Your task to perform on an android device: Search for Italian restaurants on Maps Image 0: 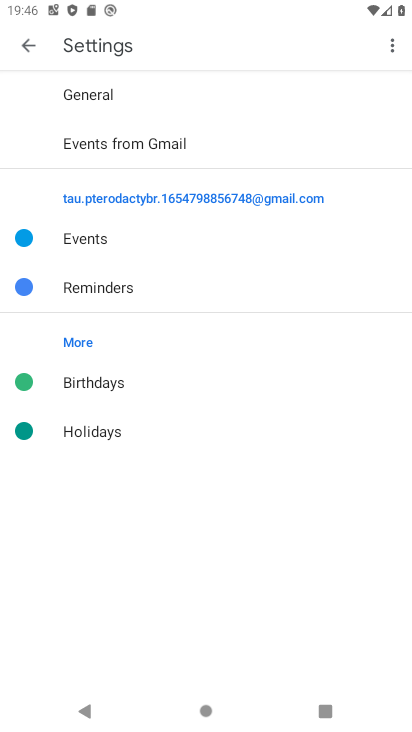
Step 0: press home button
Your task to perform on an android device: Search for Italian restaurants on Maps Image 1: 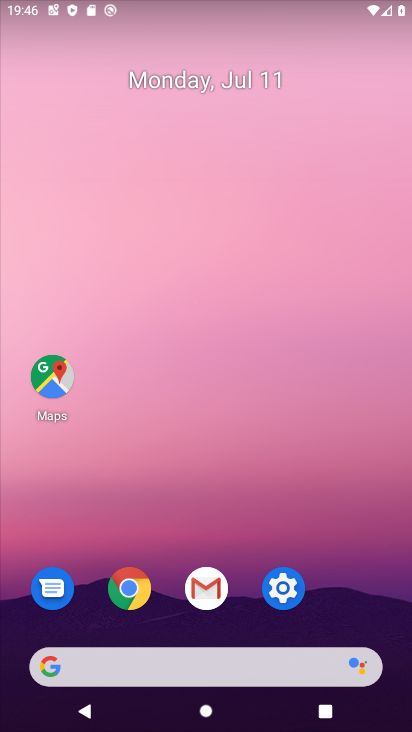
Step 1: drag from (247, 675) to (182, 195)
Your task to perform on an android device: Search for Italian restaurants on Maps Image 2: 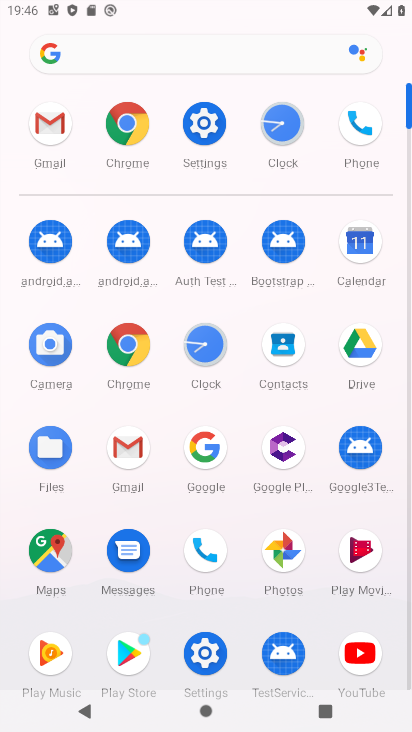
Step 2: click (48, 552)
Your task to perform on an android device: Search for Italian restaurants on Maps Image 3: 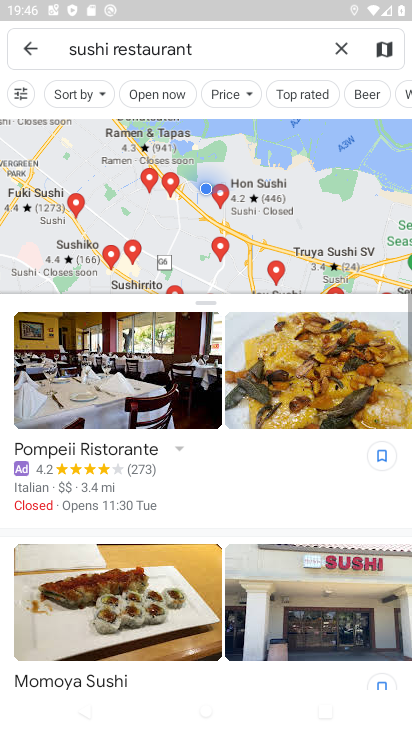
Step 3: click (342, 45)
Your task to perform on an android device: Search for Italian restaurants on Maps Image 4: 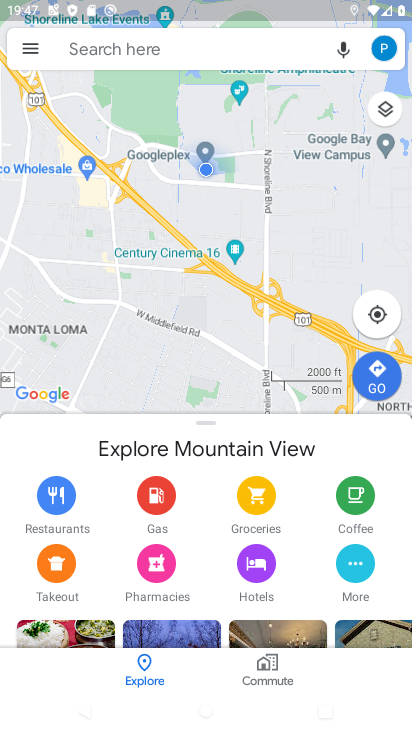
Step 4: click (274, 45)
Your task to perform on an android device: Search for Italian restaurants on Maps Image 5: 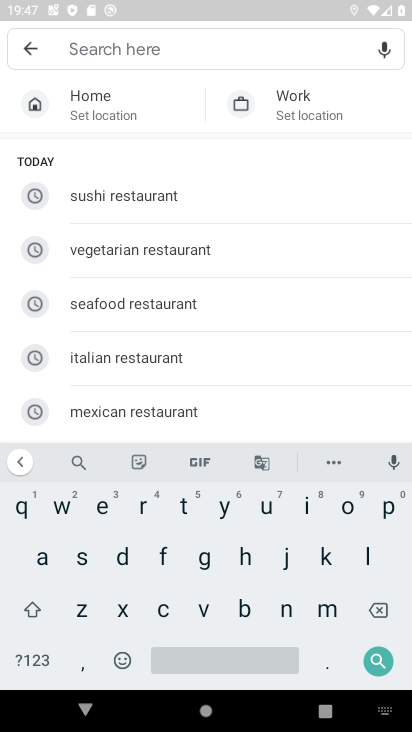
Step 5: click (139, 361)
Your task to perform on an android device: Search for Italian restaurants on Maps Image 6: 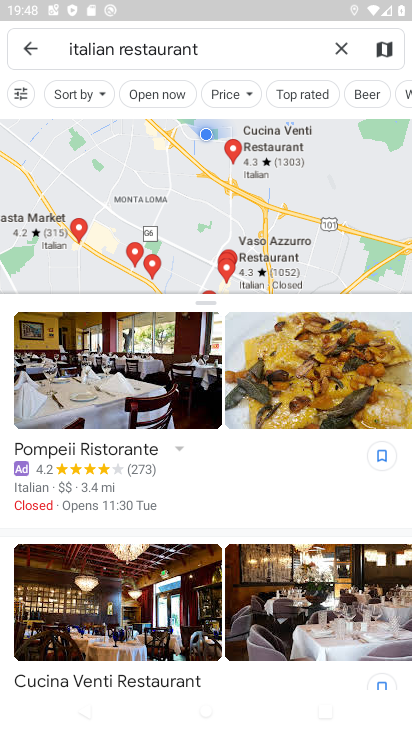
Step 6: task complete